Your task to perform on an android device: Go to battery settings Image 0: 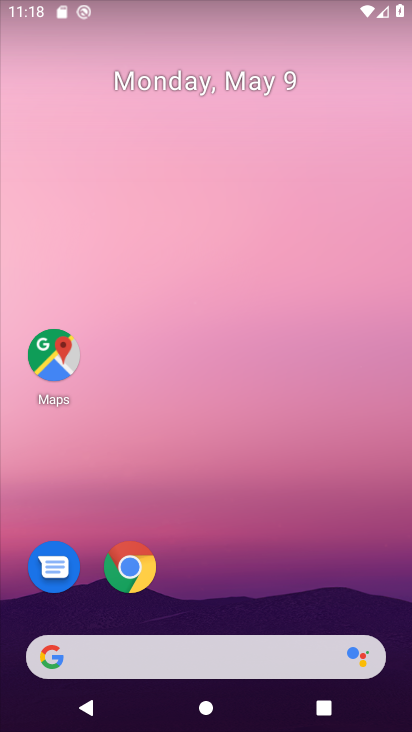
Step 0: drag from (231, 590) to (316, 113)
Your task to perform on an android device: Go to battery settings Image 1: 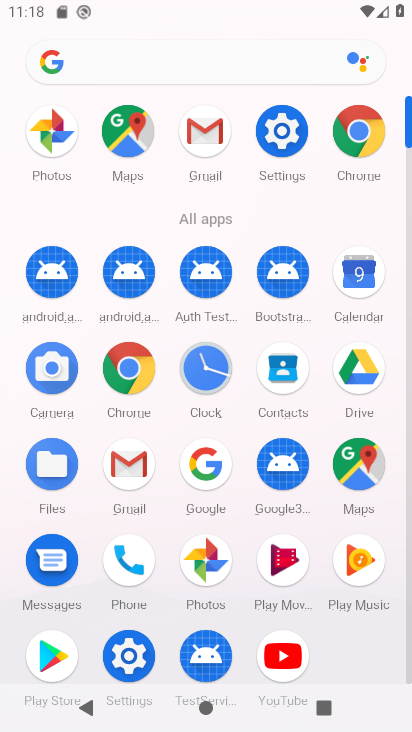
Step 1: click (125, 659)
Your task to perform on an android device: Go to battery settings Image 2: 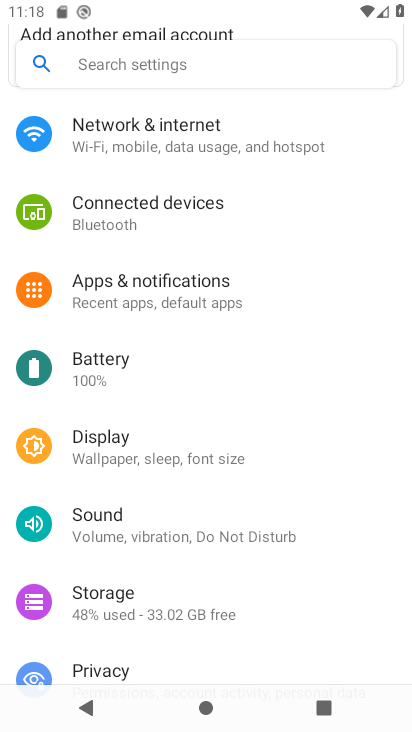
Step 2: click (102, 387)
Your task to perform on an android device: Go to battery settings Image 3: 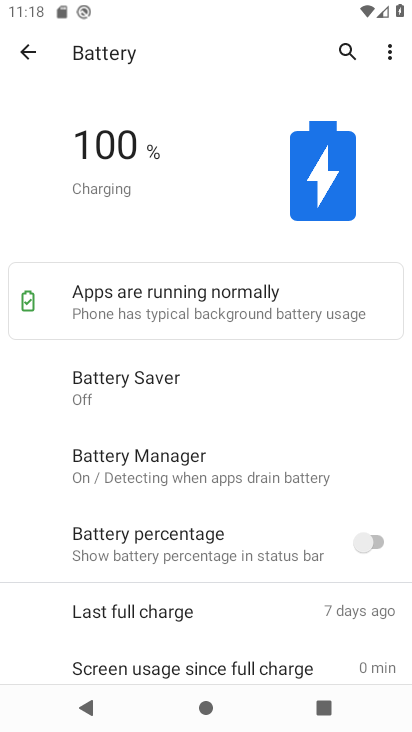
Step 3: task complete